Your task to perform on an android device: Open calendar and show me the fourth week of next month Image 0: 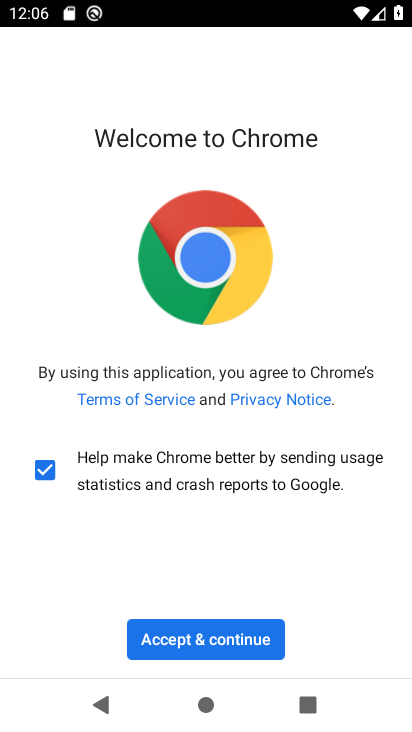
Step 0: press home button
Your task to perform on an android device: Open calendar and show me the fourth week of next month Image 1: 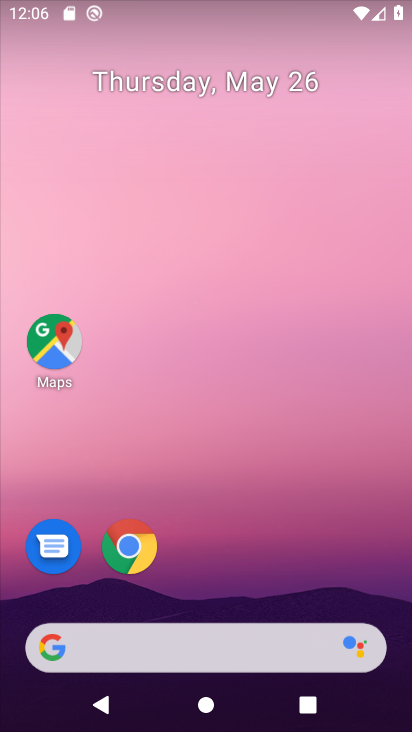
Step 1: drag from (175, 574) to (207, 154)
Your task to perform on an android device: Open calendar and show me the fourth week of next month Image 2: 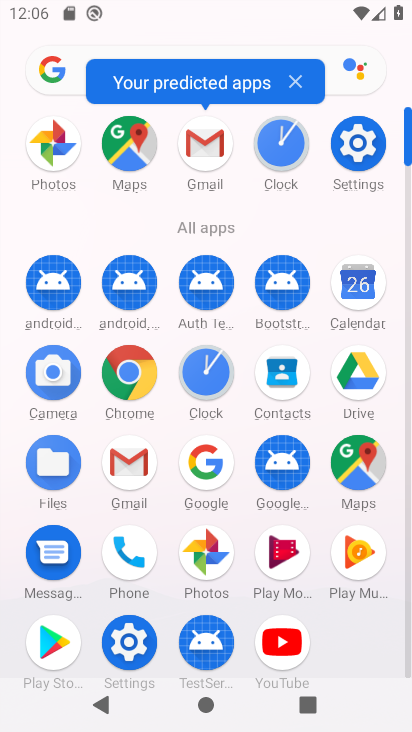
Step 2: click (355, 293)
Your task to perform on an android device: Open calendar and show me the fourth week of next month Image 3: 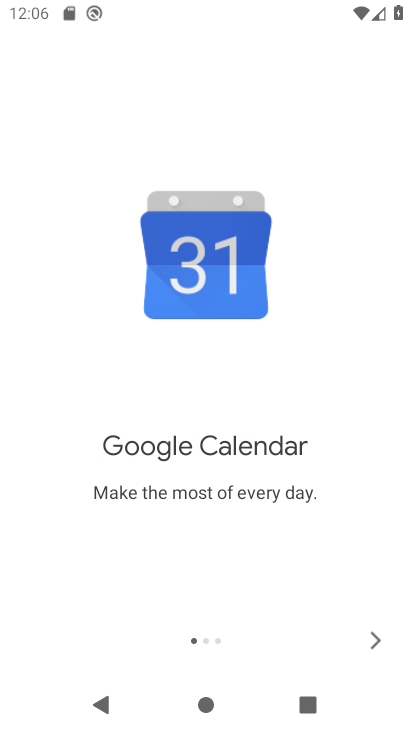
Step 3: click (372, 639)
Your task to perform on an android device: Open calendar and show me the fourth week of next month Image 4: 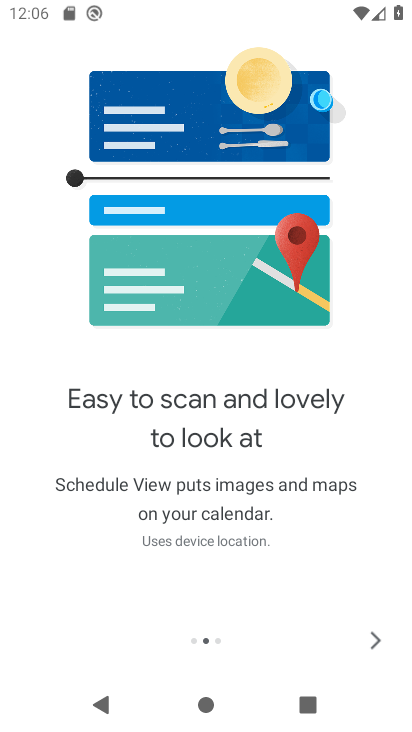
Step 4: click (380, 631)
Your task to perform on an android device: Open calendar and show me the fourth week of next month Image 5: 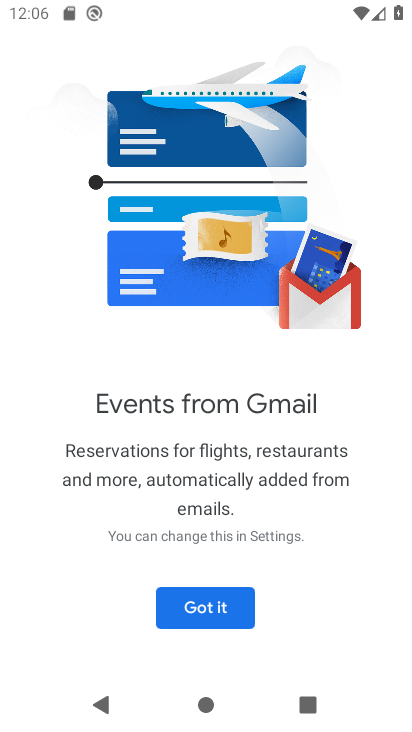
Step 5: click (212, 622)
Your task to perform on an android device: Open calendar and show me the fourth week of next month Image 6: 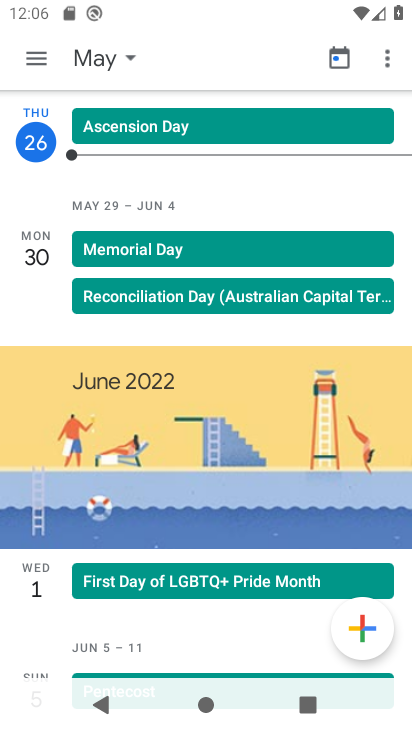
Step 6: click (124, 66)
Your task to perform on an android device: Open calendar and show me the fourth week of next month Image 7: 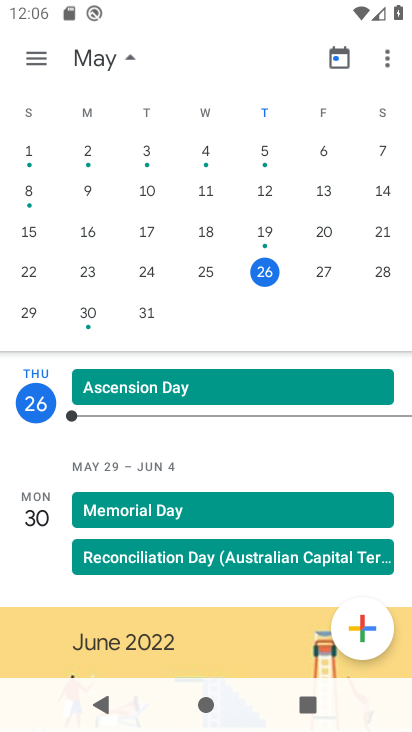
Step 7: drag from (399, 246) to (0, 244)
Your task to perform on an android device: Open calendar and show me the fourth week of next month Image 8: 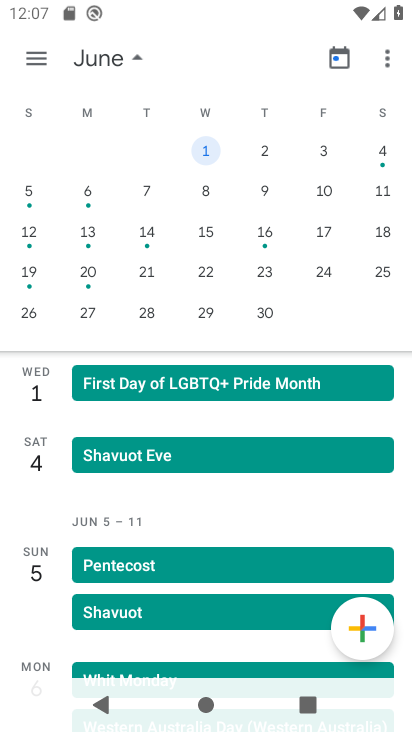
Step 8: click (22, 273)
Your task to perform on an android device: Open calendar and show me the fourth week of next month Image 9: 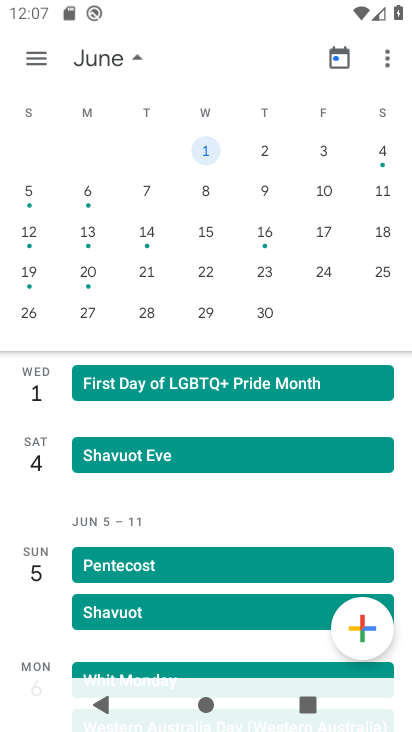
Step 9: click (86, 273)
Your task to perform on an android device: Open calendar and show me the fourth week of next month Image 10: 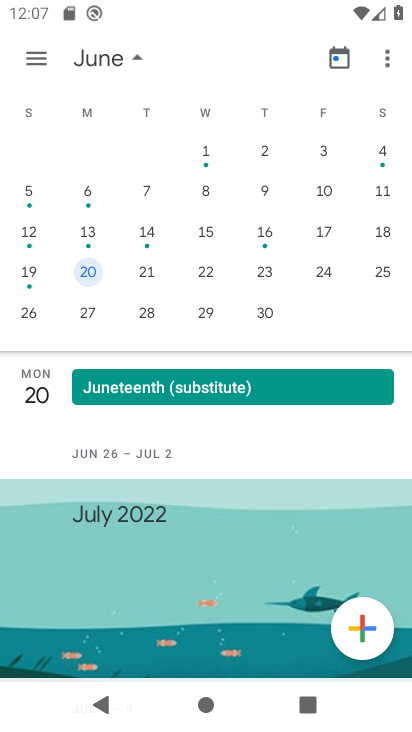
Step 10: click (152, 272)
Your task to perform on an android device: Open calendar and show me the fourth week of next month Image 11: 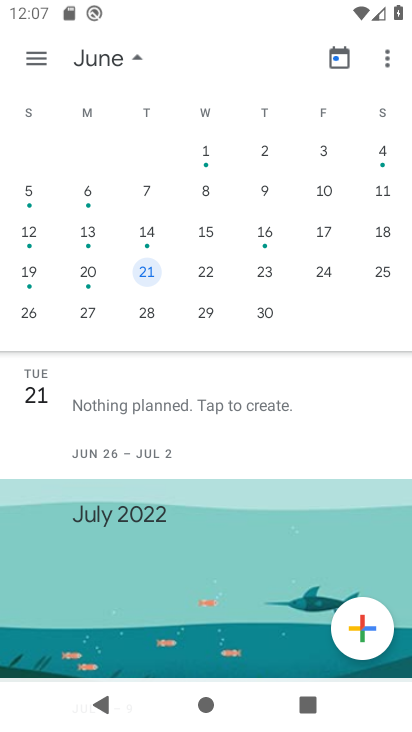
Step 11: click (200, 271)
Your task to perform on an android device: Open calendar and show me the fourth week of next month Image 12: 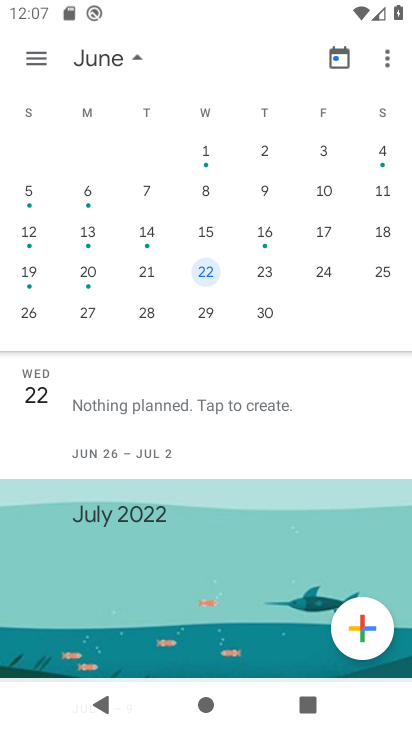
Step 12: click (258, 276)
Your task to perform on an android device: Open calendar and show me the fourth week of next month Image 13: 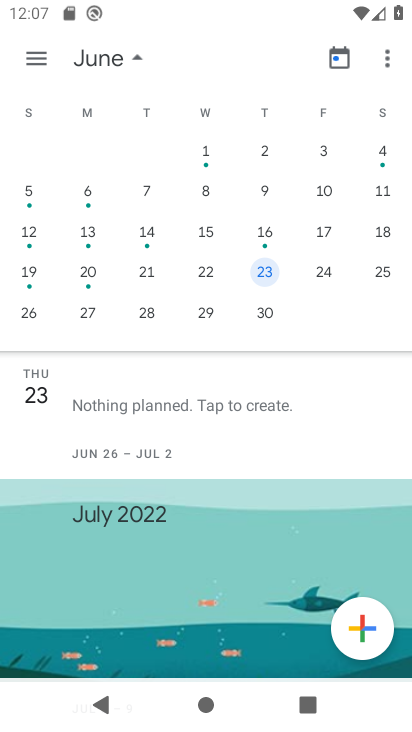
Step 13: click (319, 281)
Your task to perform on an android device: Open calendar and show me the fourth week of next month Image 14: 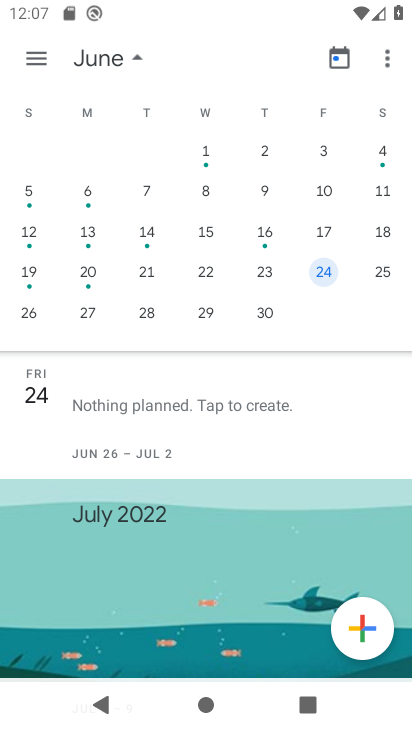
Step 14: click (381, 273)
Your task to perform on an android device: Open calendar and show me the fourth week of next month Image 15: 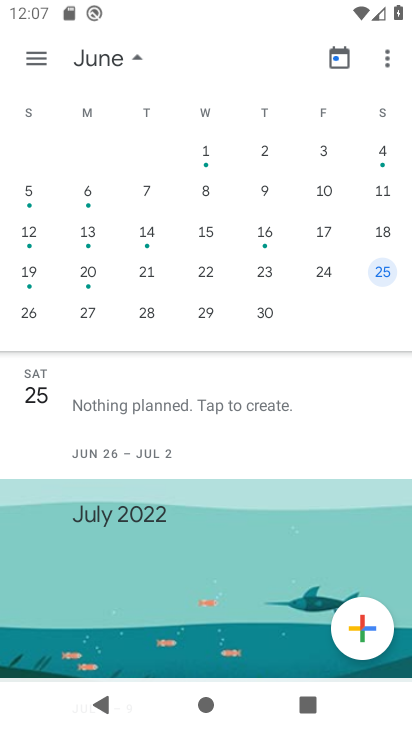
Step 15: task complete